Your task to perform on an android device: Find coffee shops on Maps Image 0: 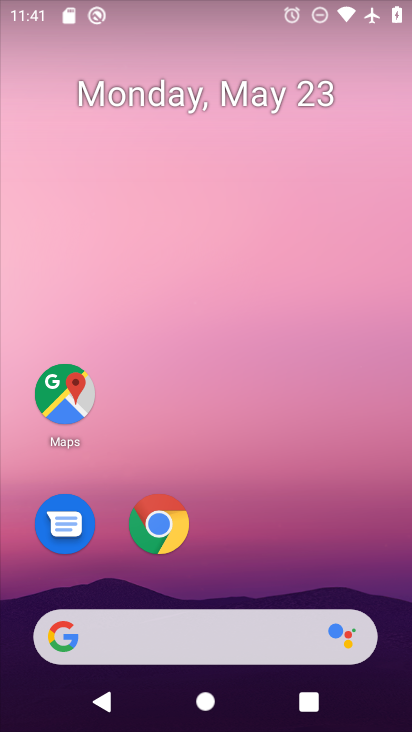
Step 0: click (51, 414)
Your task to perform on an android device: Find coffee shops on Maps Image 1: 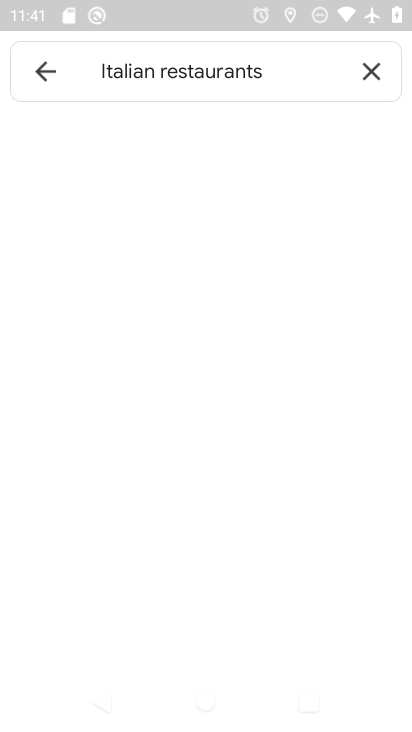
Step 1: click (373, 73)
Your task to perform on an android device: Find coffee shops on Maps Image 2: 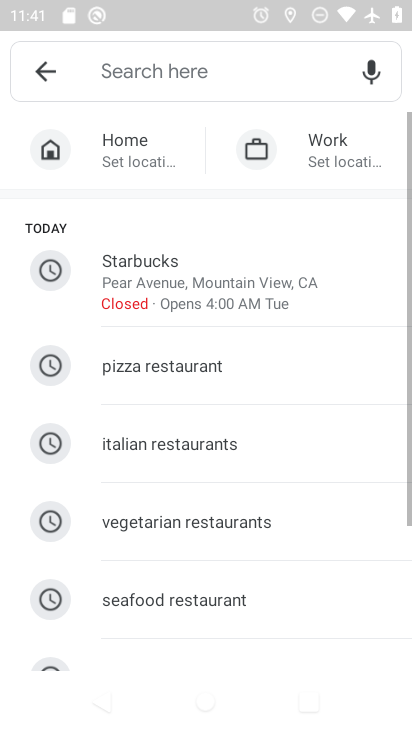
Step 2: click (233, 71)
Your task to perform on an android device: Find coffee shops on Maps Image 3: 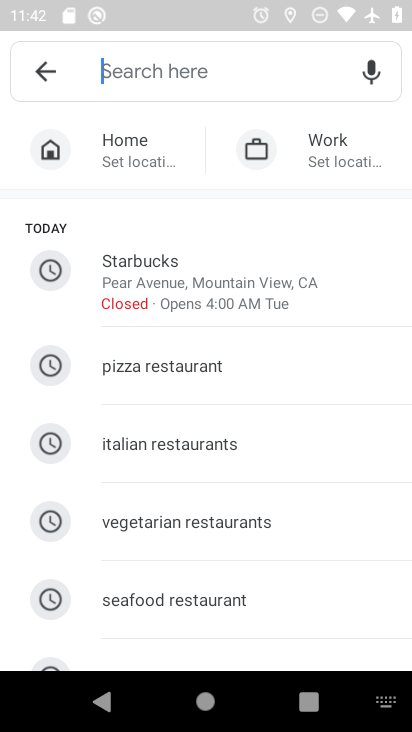
Step 3: type "coffee shops"
Your task to perform on an android device: Find coffee shops on Maps Image 4: 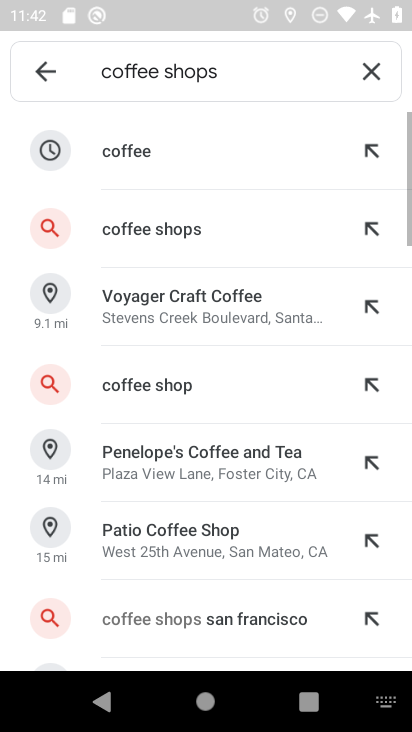
Step 4: click (176, 239)
Your task to perform on an android device: Find coffee shops on Maps Image 5: 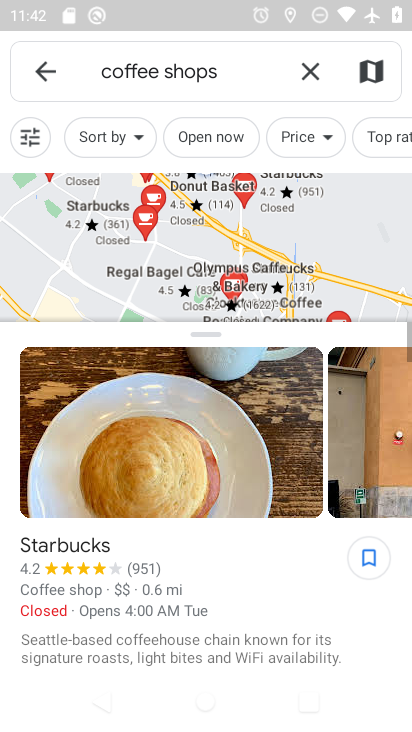
Step 5: task complete